Your task to perform on an android device: Open Google Chrome Image 0: 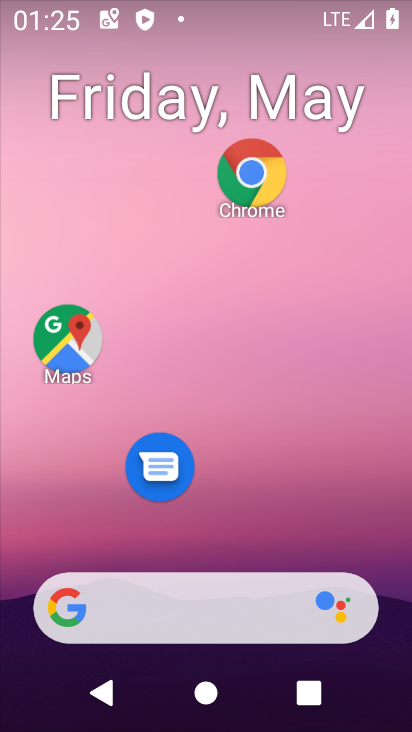
Step 0: drag from (269, 661) to (240, 263)
Your task to perform on an android device: Open Google Chrome Image 1: 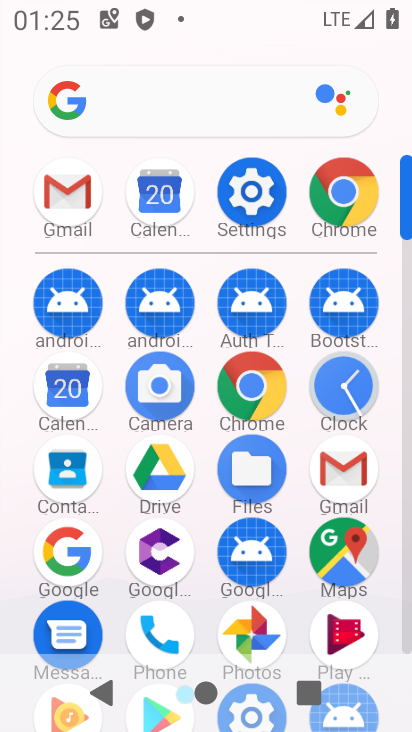
Step 1: click (338, 203)
Your task to perform on an android device: Open Google Chrome Image 2: 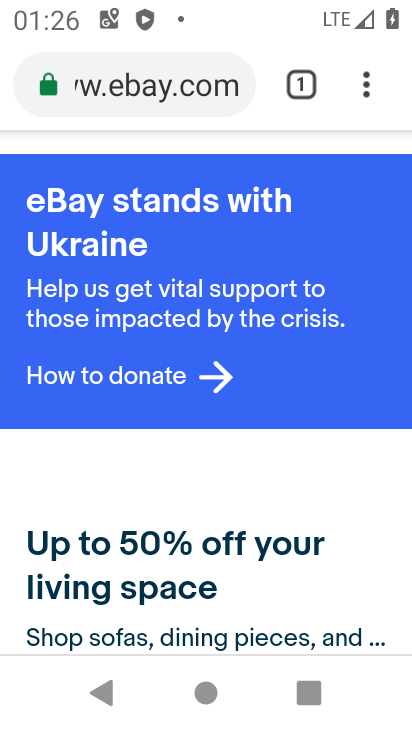
Step 2: click (373, 81)
Your task to perform on an android device: Open Google Chrome Image 3: 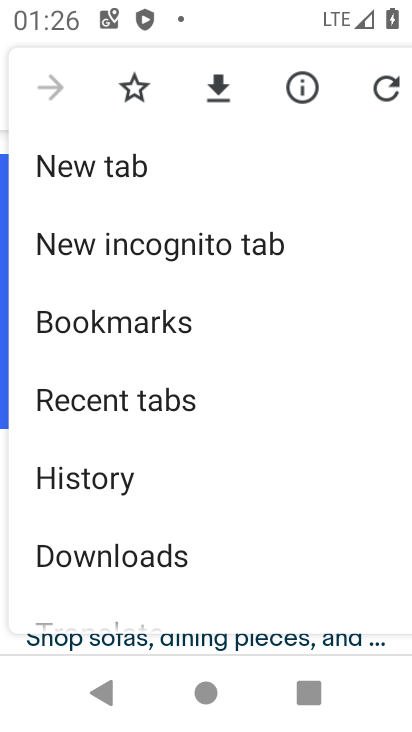
Step 3: drag from (203, 516) to (244, 266)
Your task to perform on an android device: Open Google Chrome Image 4: 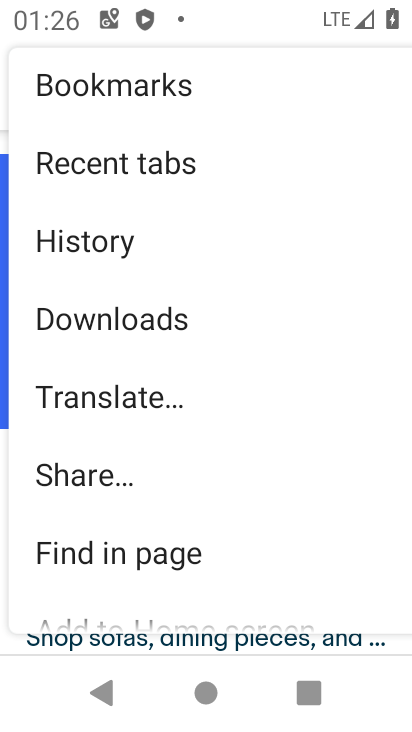
Step 4: drag from (204, 452) to (260, 292)
Your task to perform on an android device: Open Google Chrome Image 5: 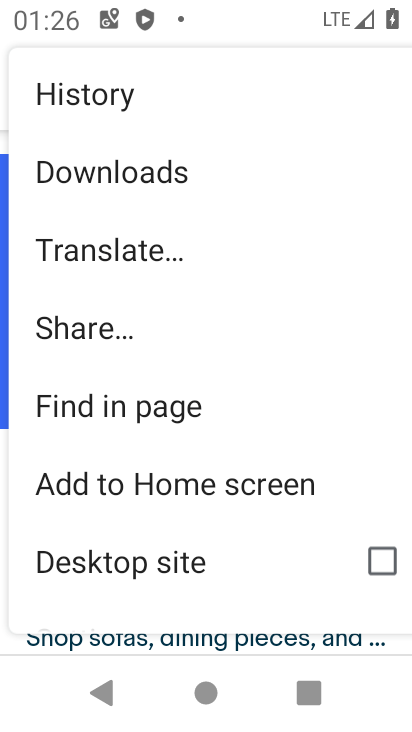
Step 5: drag from (172, 518) to (210, 371)
Your task to perform on an android device: Open Google Chrome Image 6: 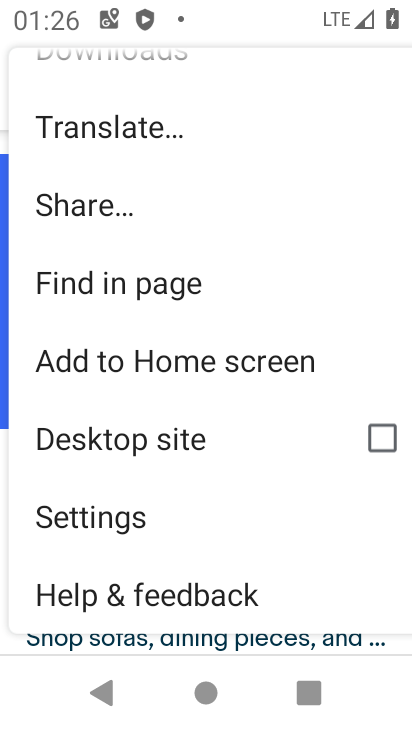
Step 6: click (165, 528)
Your task to perform on an android device: Open Google Chrome Image 7: 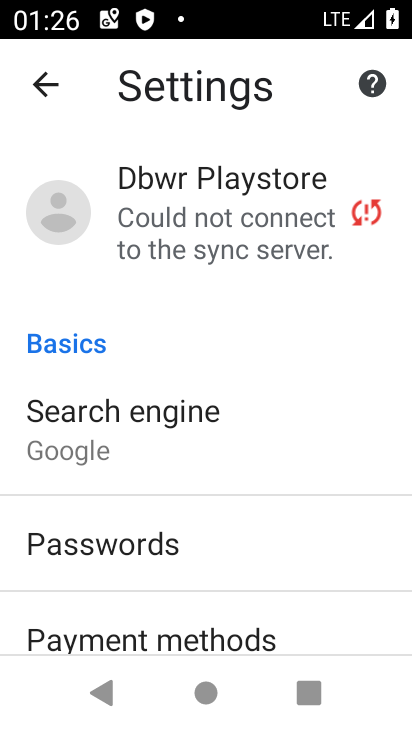
Step 7: task complete